Your task to perform on an android device: Add "alienware area 51" to the cart on costco Image 0: 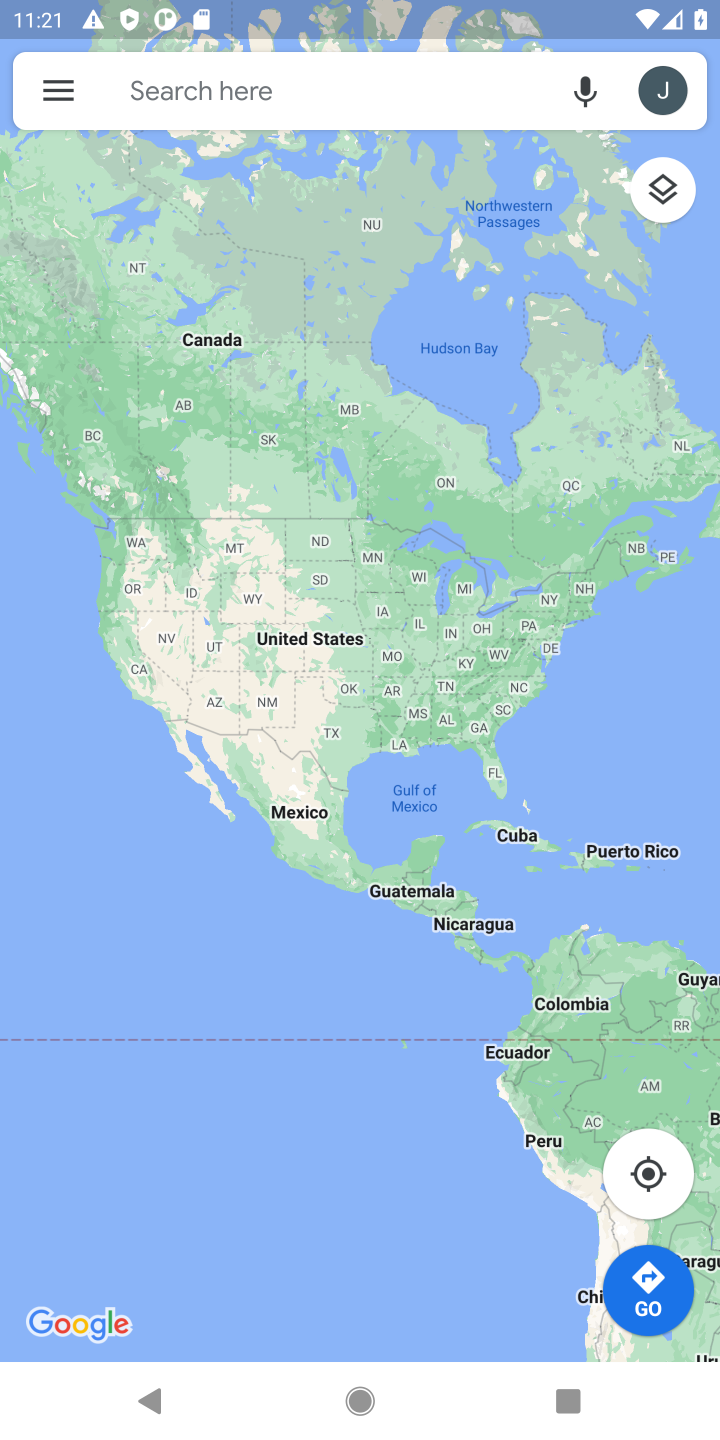
Step 0: press home button
Your task to perform on an android device: Add "alienware area 51" to the cart on costco Image 1: 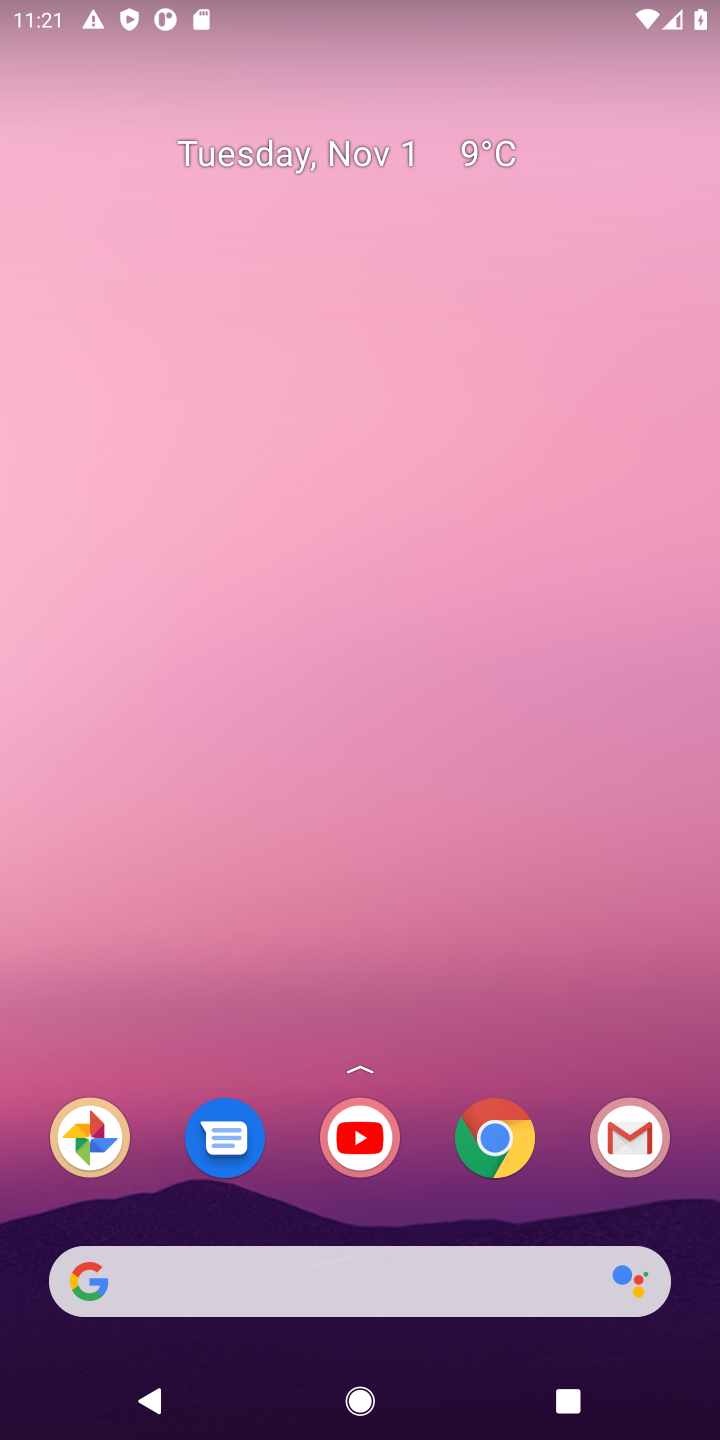
Step 1: click (317, 1286)
Your task to perform on an android device: Add "alienware area 51" to the cart on costco Image 2: 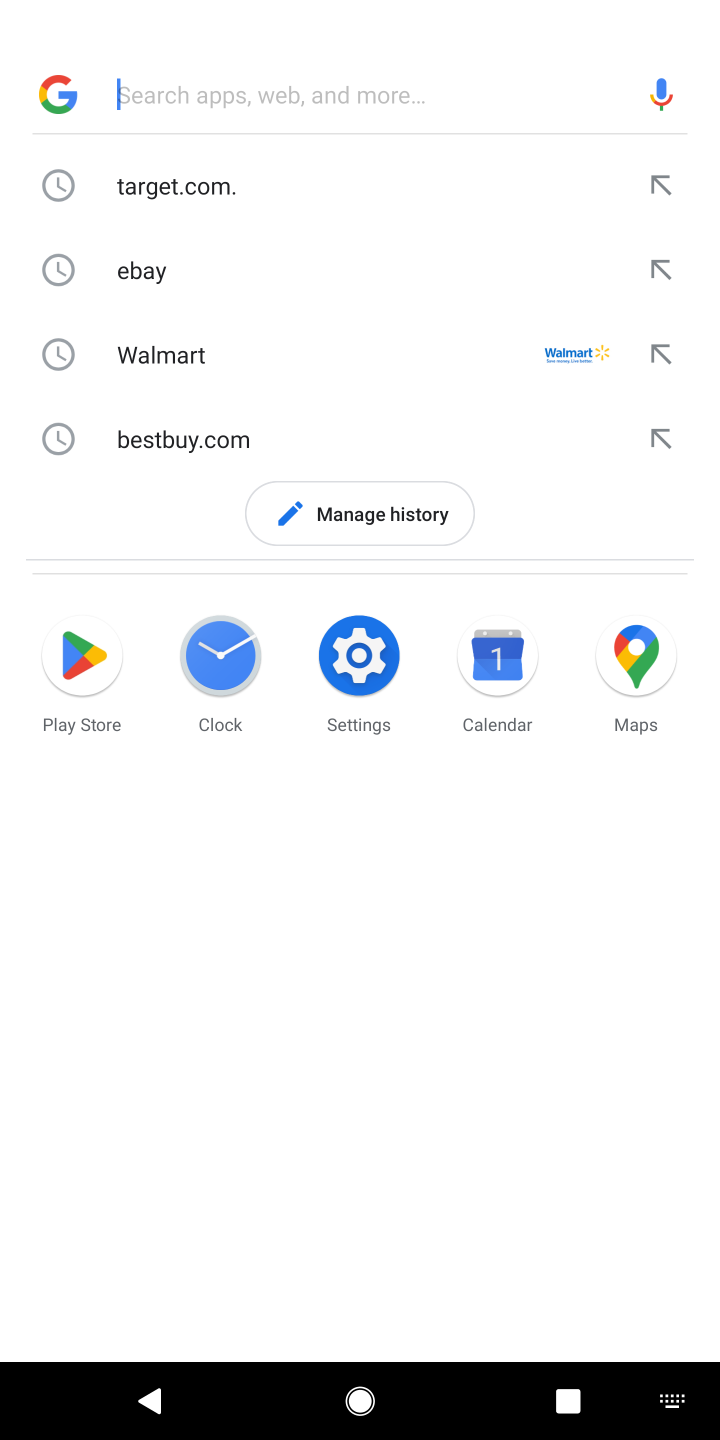
Step 2: type "costco"
Your task to perform on an android device: Add "alienware area 51" to the cart on costco Image 3: 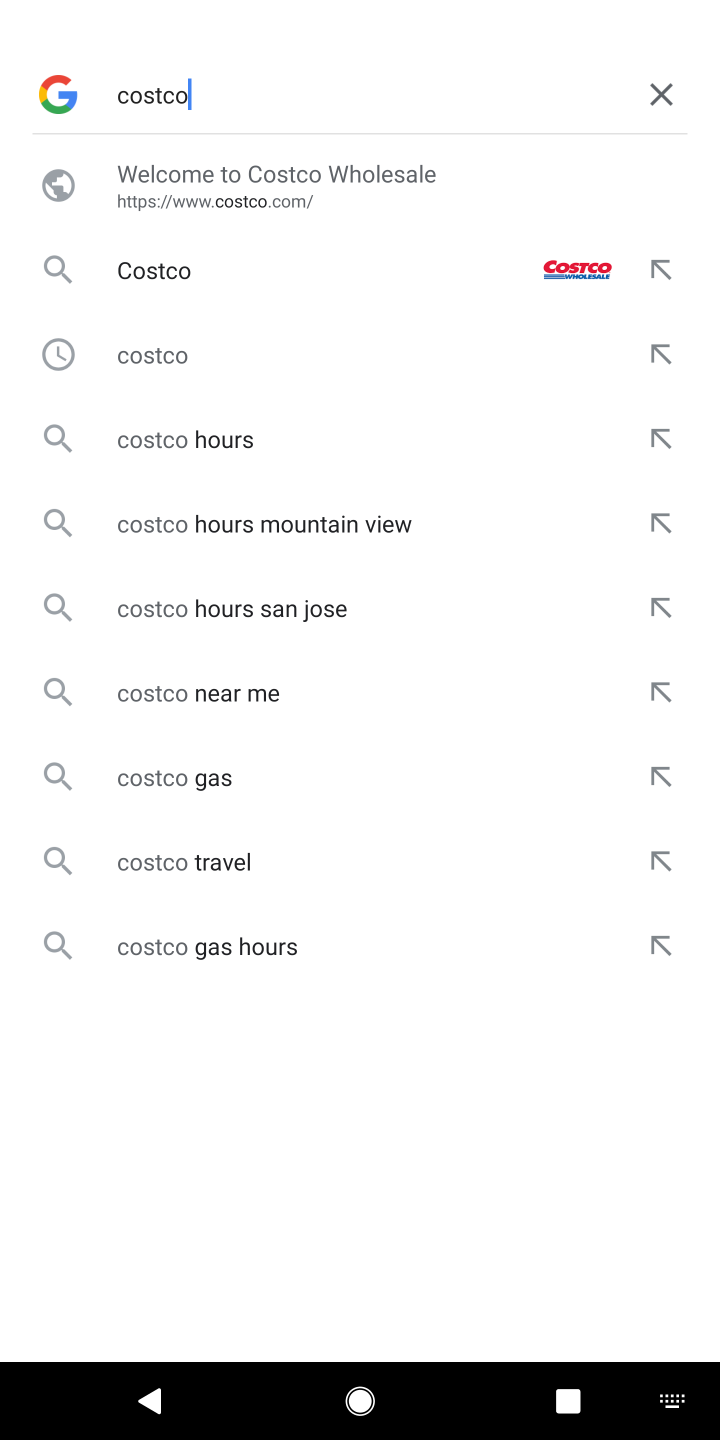
Step 3: click (296, 258)
Your task to perform on an android device: Add "alienware area 51" to the cart on costco Image 4: 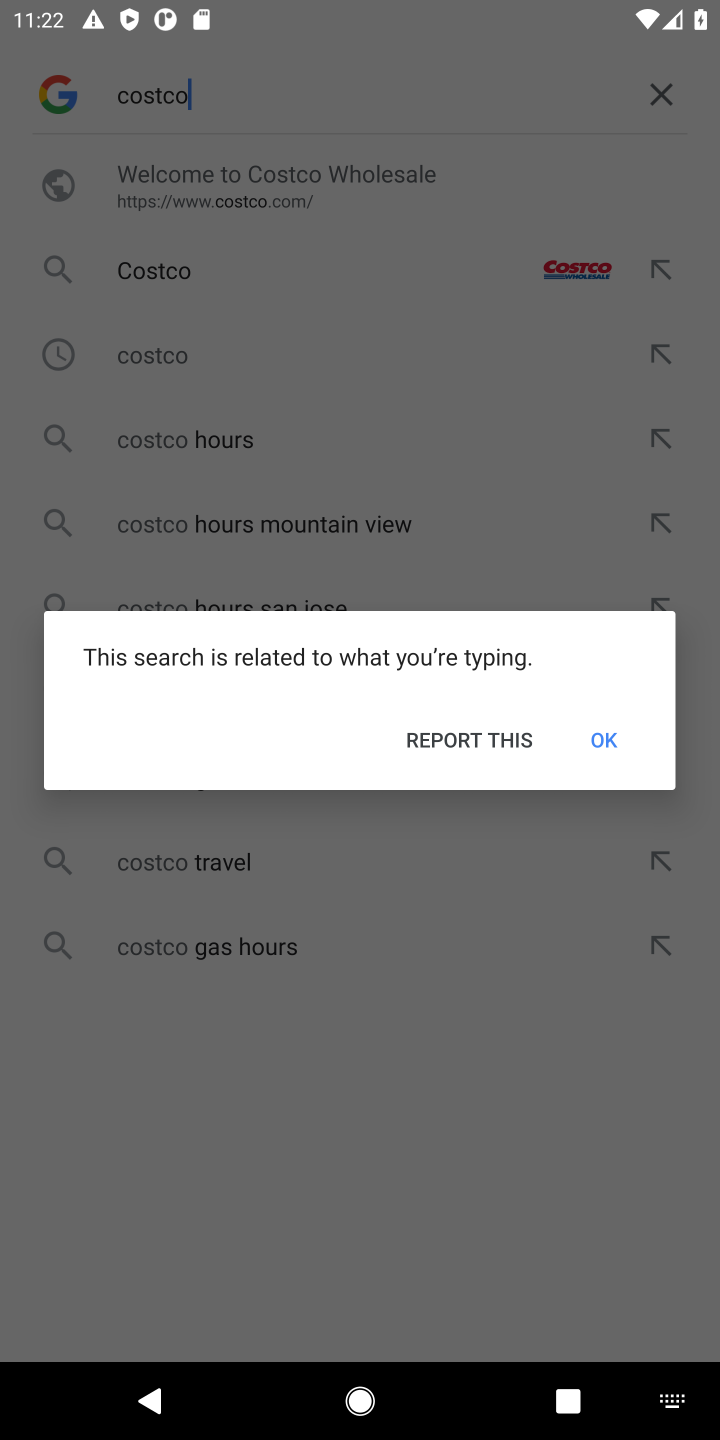
Step 4: click (575, 730)
Your task to perform on an android device: Add "alienware area 51" to the cart on costco Image 5: 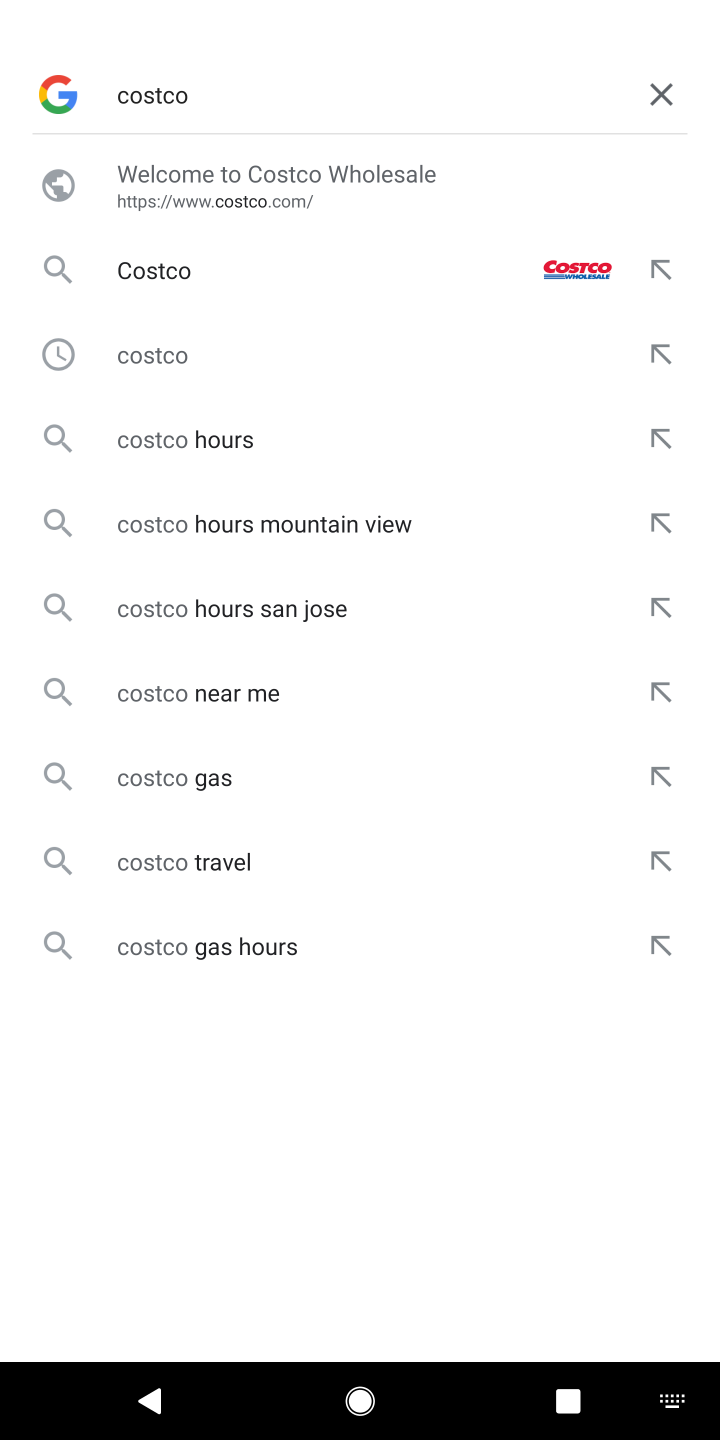
Step 5: click (333, 199)
Your task to perform on an android device: Add "alienware area 51" to the cart on costco Image 6: 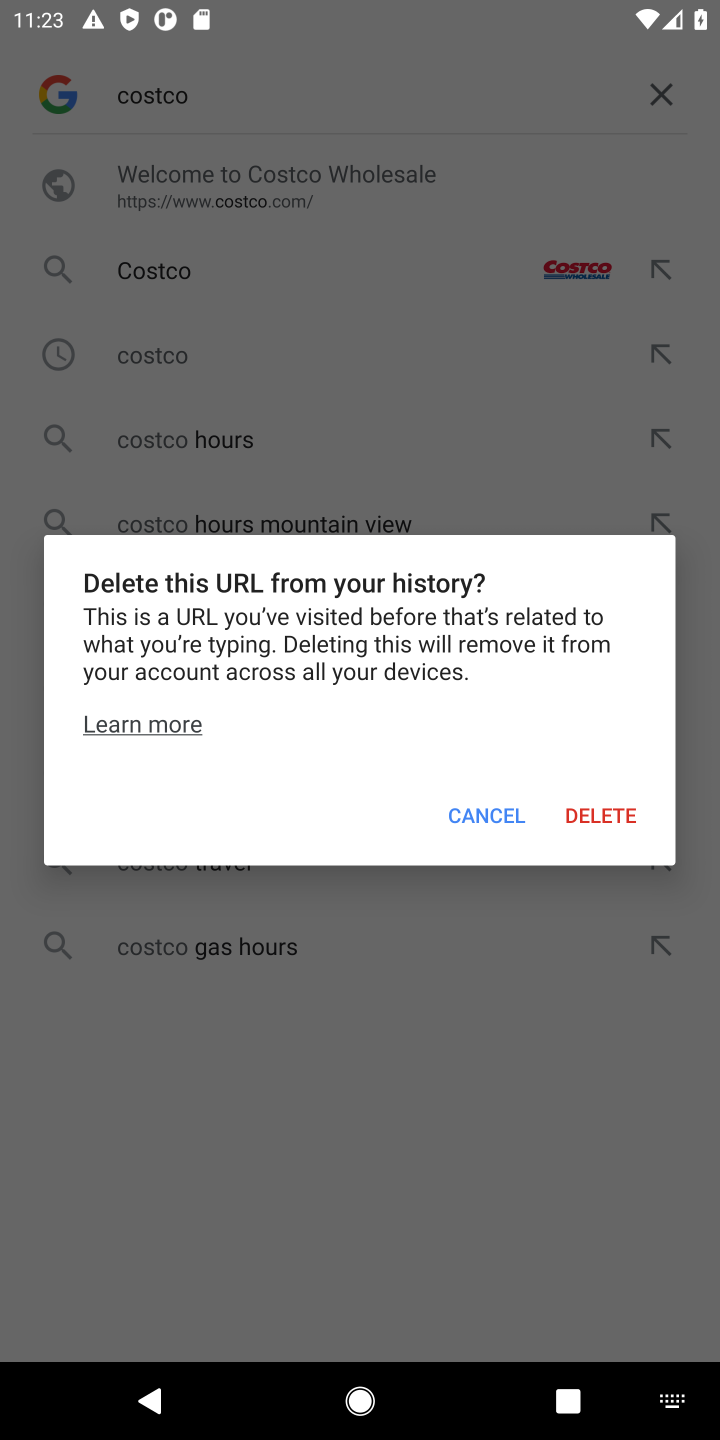
Step 6: click (512, 814)
Your task to perform on an android device: Add "alienware area 51" to the cart on costco Image 7: 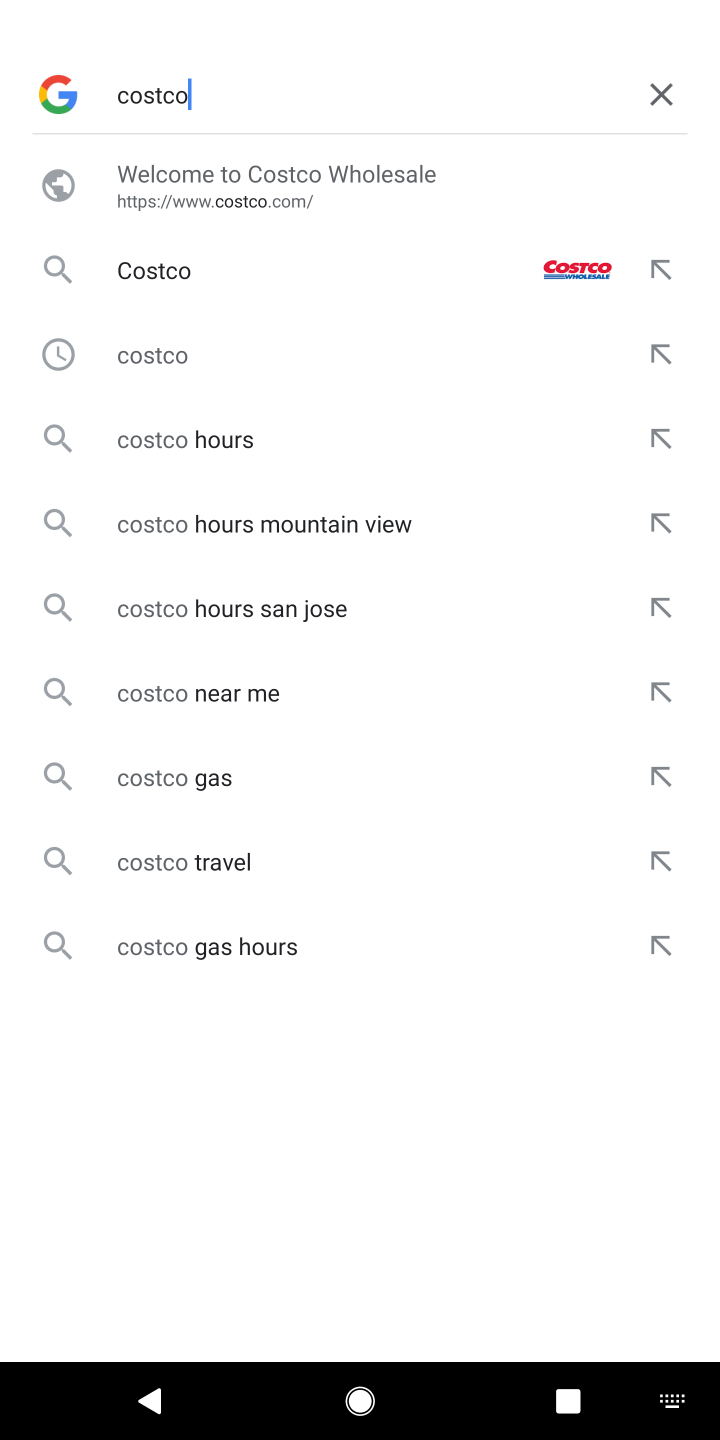
Step 7: click (187, 207)
Your task to perform on an android device: Add "alienware area 51" to the cart on costco Image 8: 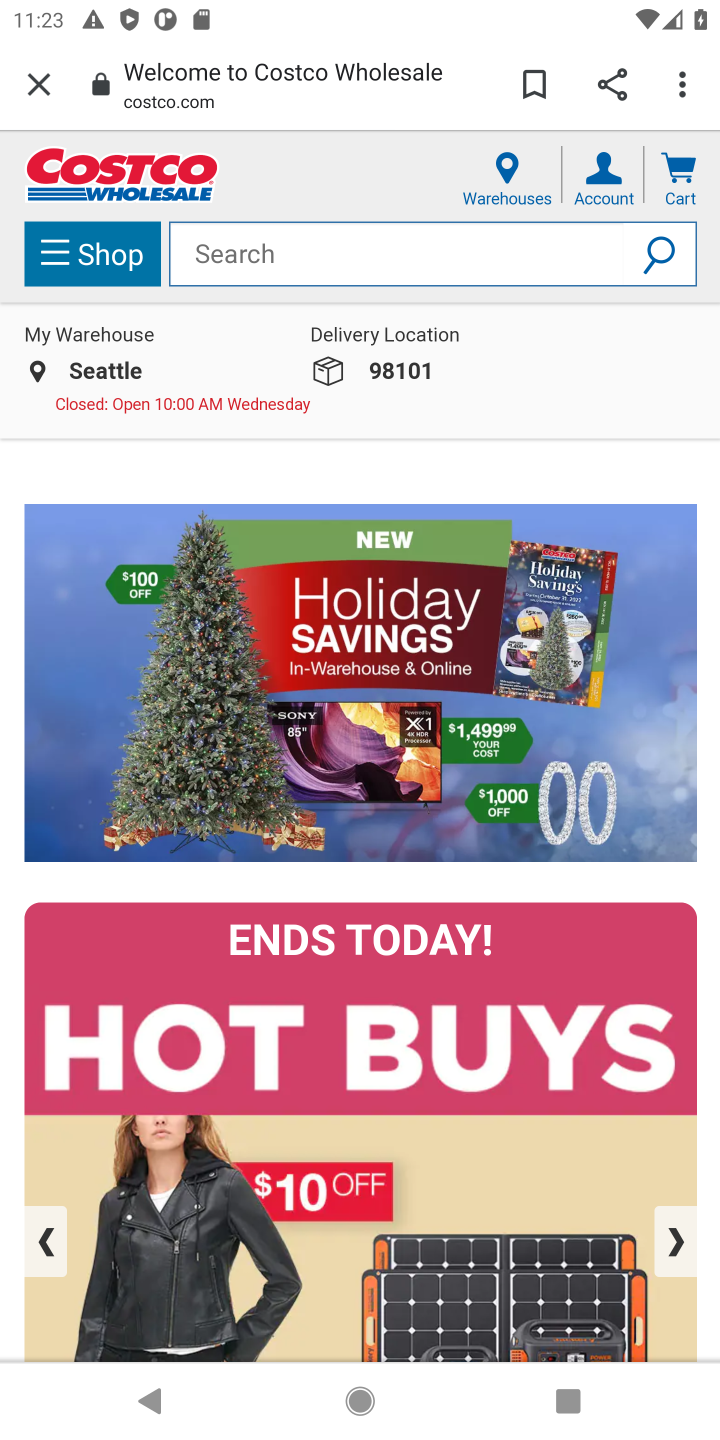
Step 8: click (349, 248)
Your task to perform on an android device: Add "alienware area 51" to the cart on costco Image 9: 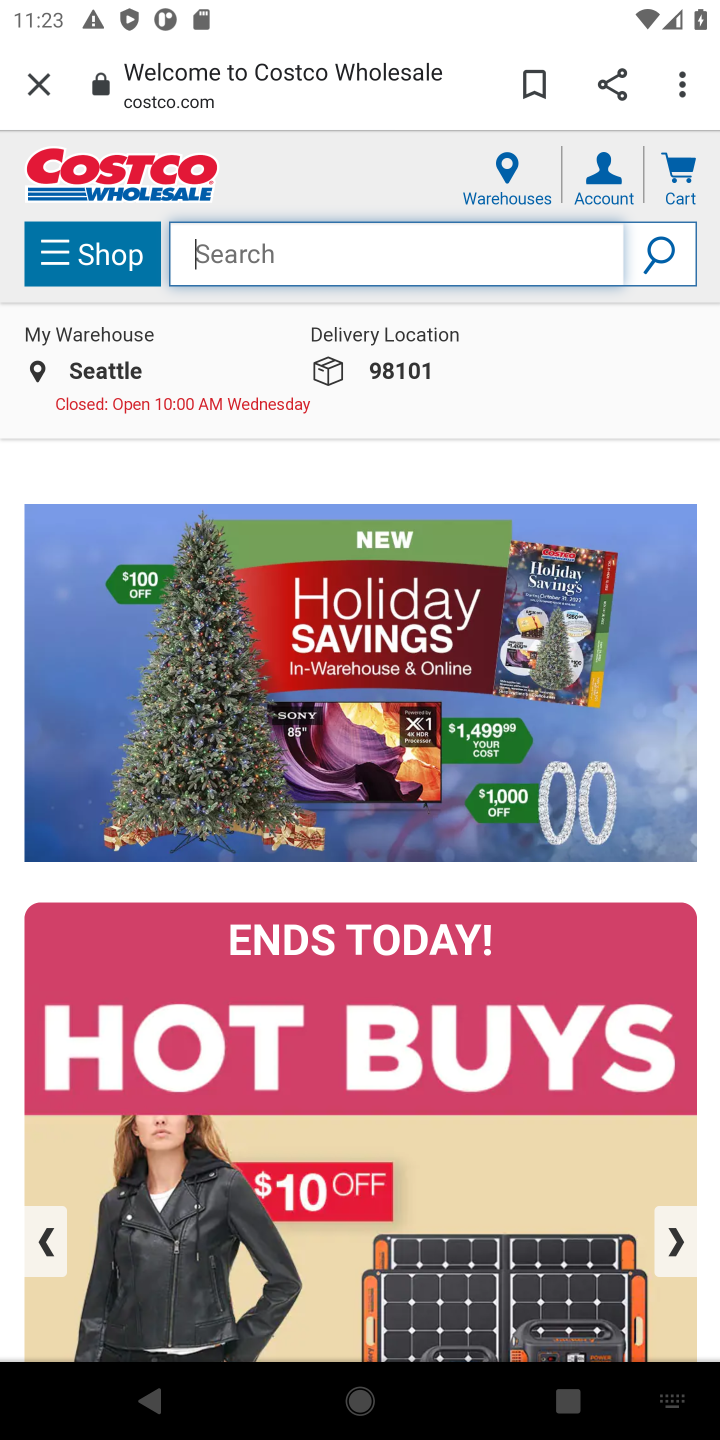
Step 9: drag from (146, 1439) to (671, 1097)
Your task to perform on an android device: Add "alienware area 51" to the cart on costco Image 10: 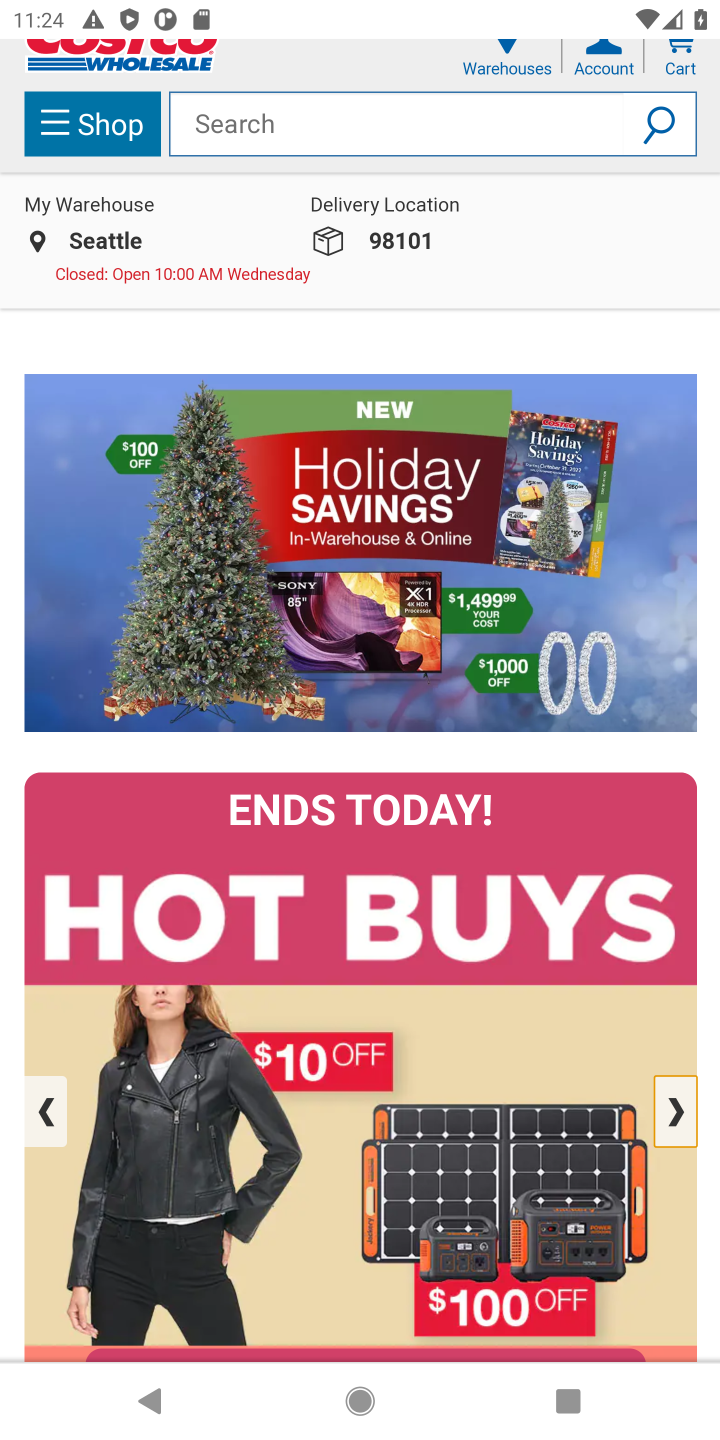
Step 10: drag from (655, 1350) to (706, 1417)
Your task to perform on an android device: Add "alienware area 51" to the cart on costco Image 11: 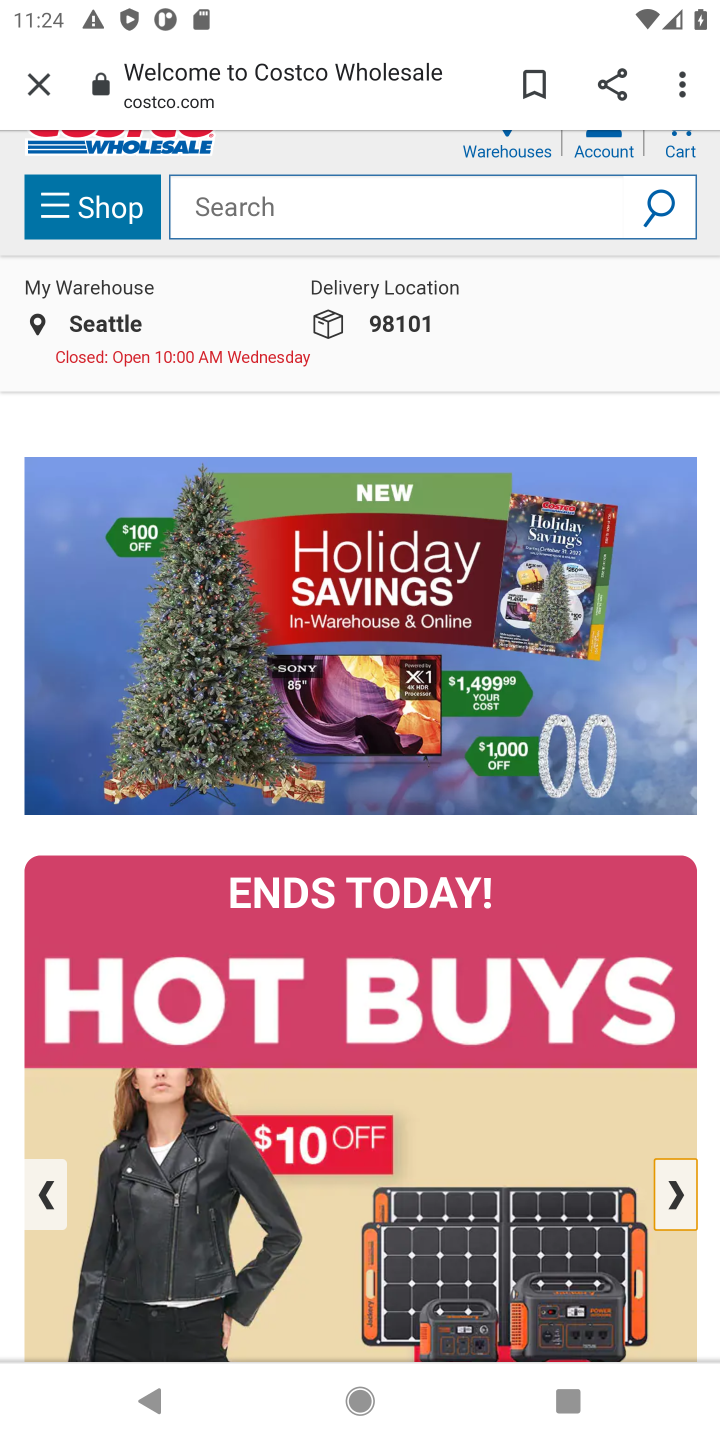
Step 11: type "alienware area 51"
Your task to perform on an android device: Add "alienware area 51" to the cart on costco Image 12: 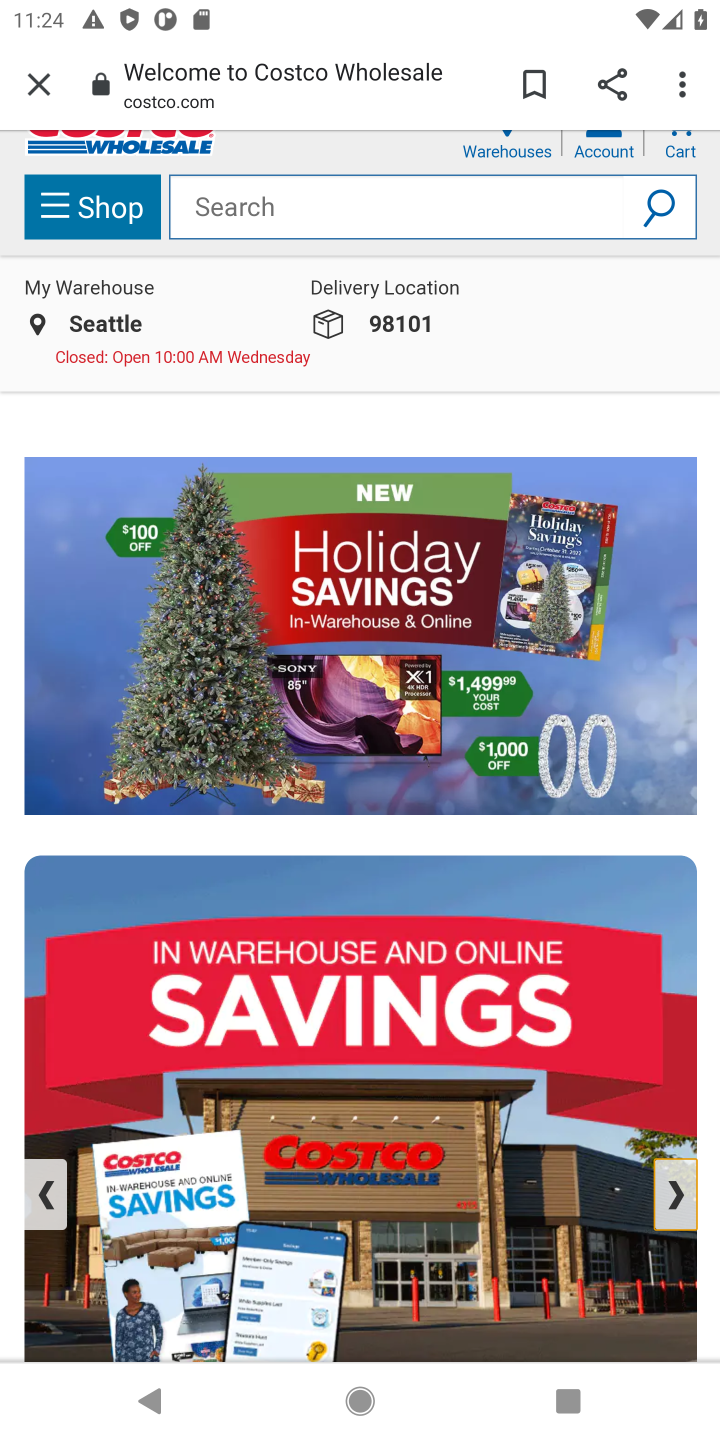
Step 12: click (257, 199)
Your task to perform on an android device: Add "alienware area 51" to the cart on costco Image 13: 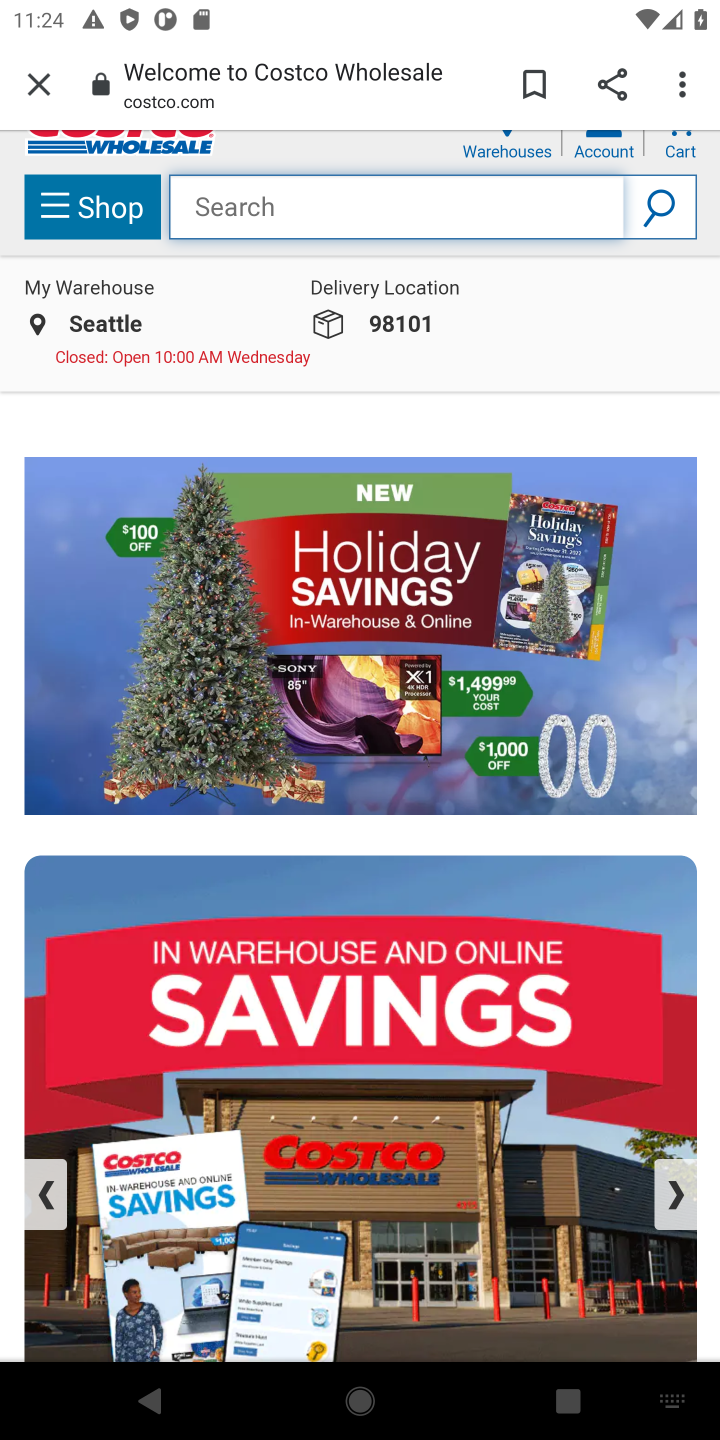
Step 13: type "alienware area 51"
Your task to perform on an android device: Add "alienware area 51" to the cart on costco Image 14: 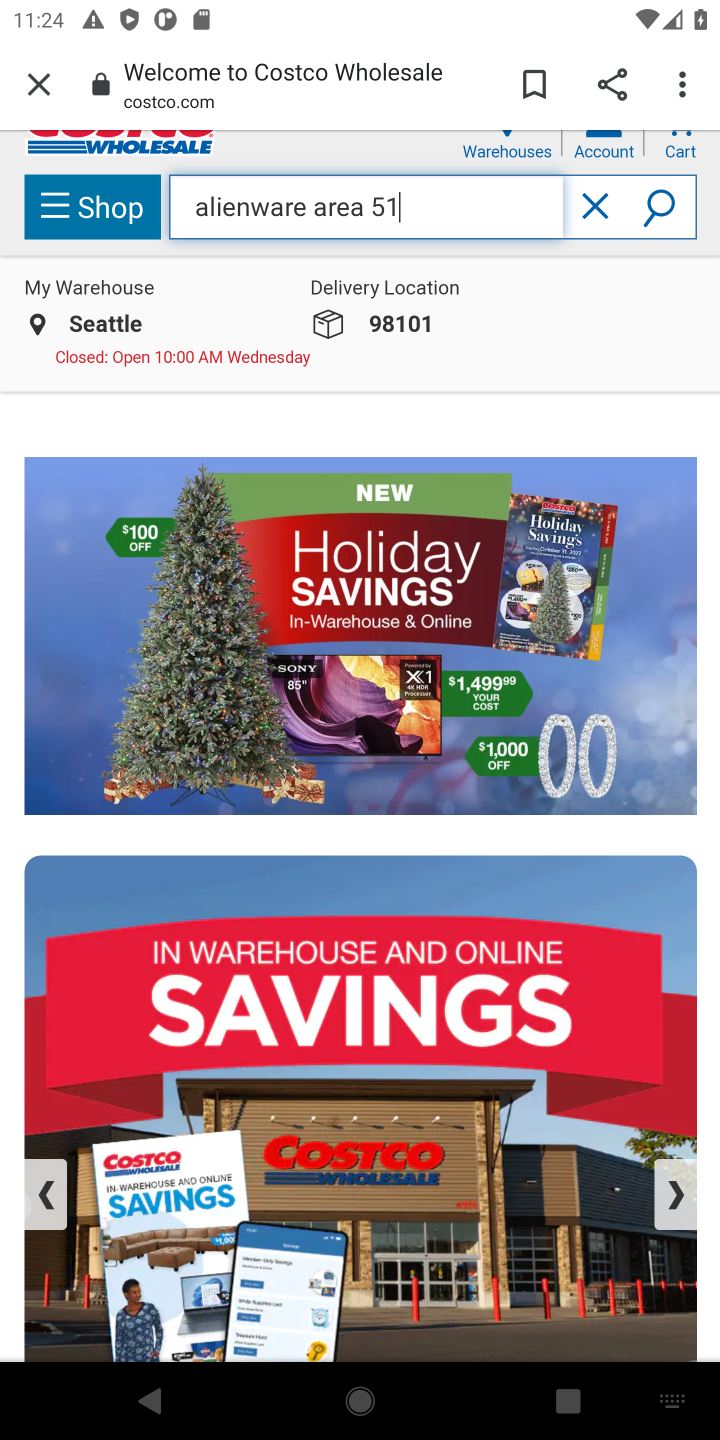
Step 14: type ""
Your task to perform on an android device: Add "alienware area 51" to the cart on costco Image 15: 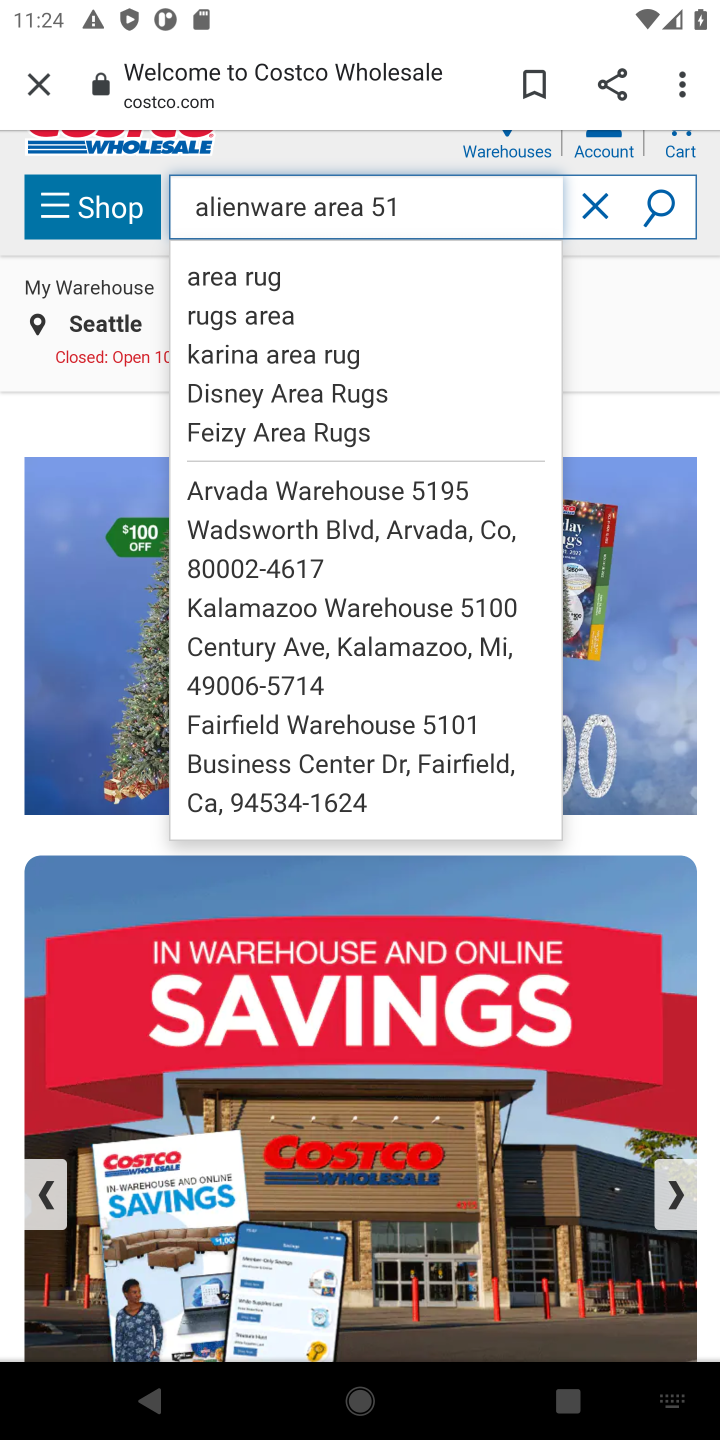
Step 15: click (646, 207)
Your task to perform on an android device: Add "alienware area 51" to the cart on costco Image 16: 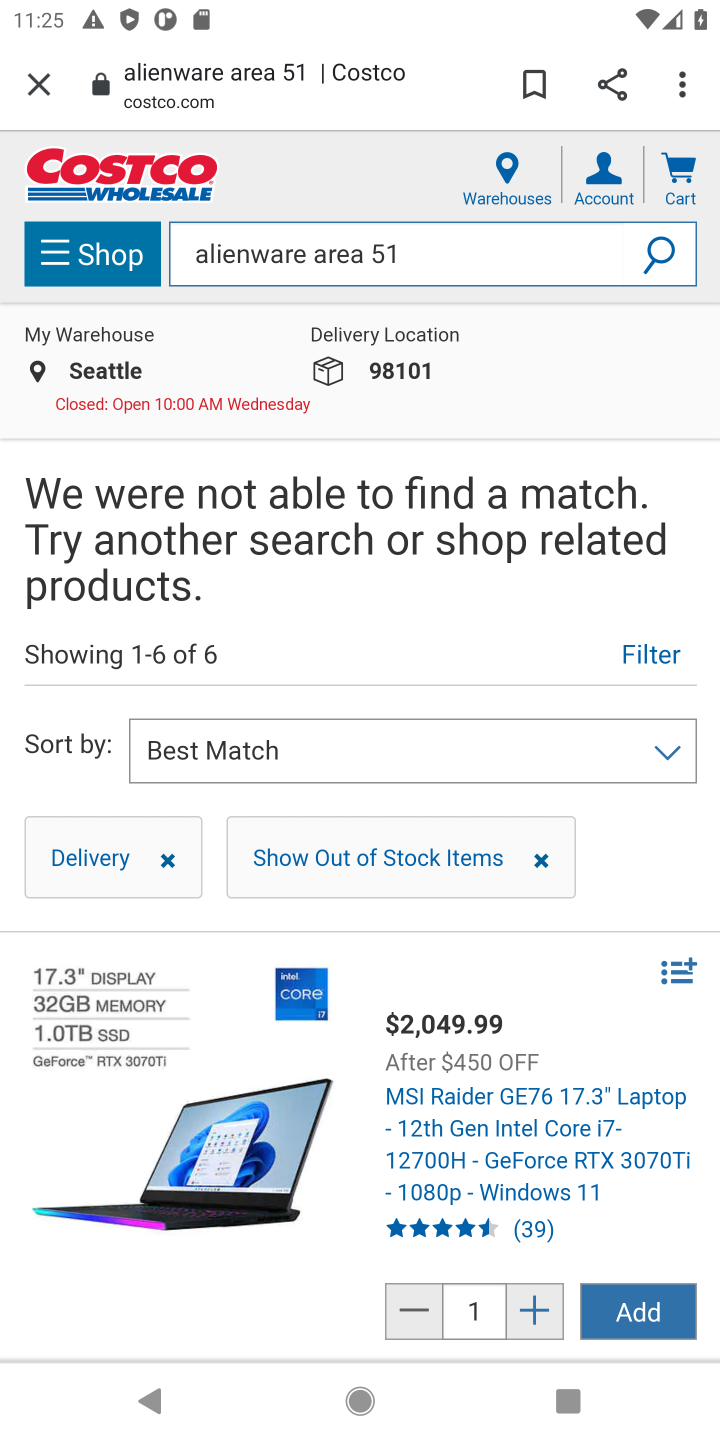
Step 16: click (677, 1304)
Your task to perform on an android device: Add "alienware area 51" to the cart on costco Image 17: 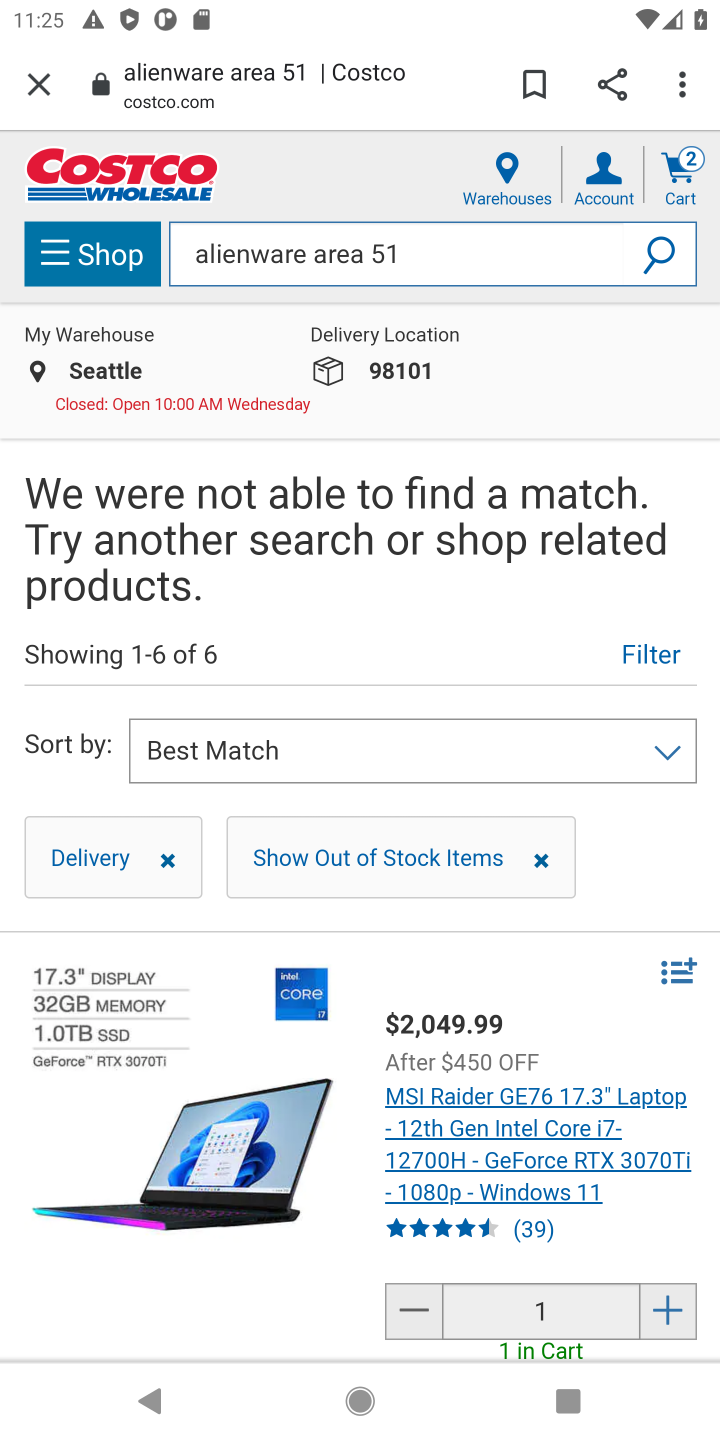
Step 17: task complete